Your task to perform on an android device: toggle notification dots Image 0: 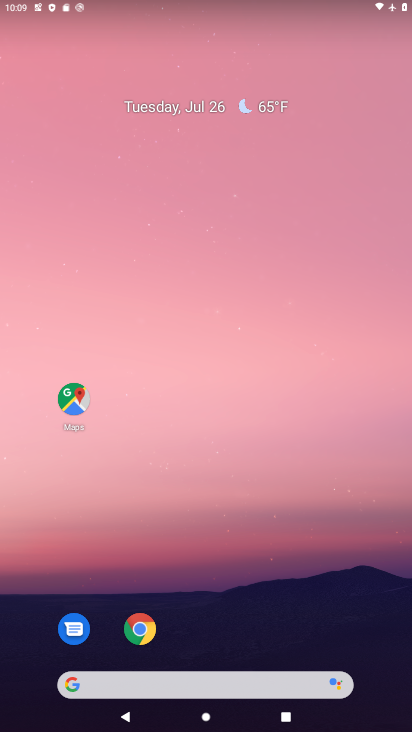
Step 0: drag from (330, 569) to (253, 50)
Your task to perform on an android device: toggle notification dots Image 1: 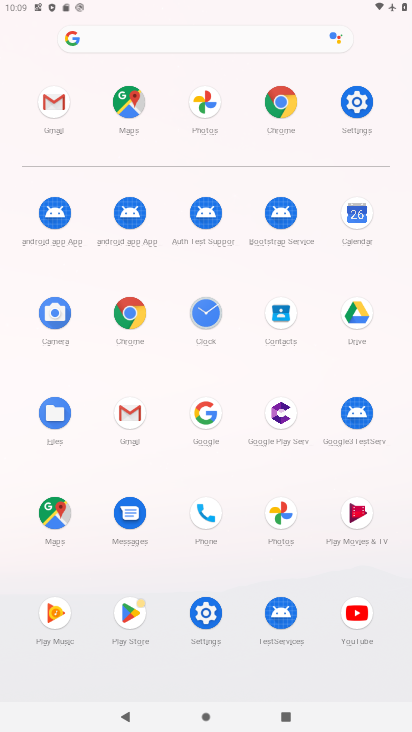
Step 1: click (376, 83)
Your task to perform on an android device: toggle notification dots Image 2: 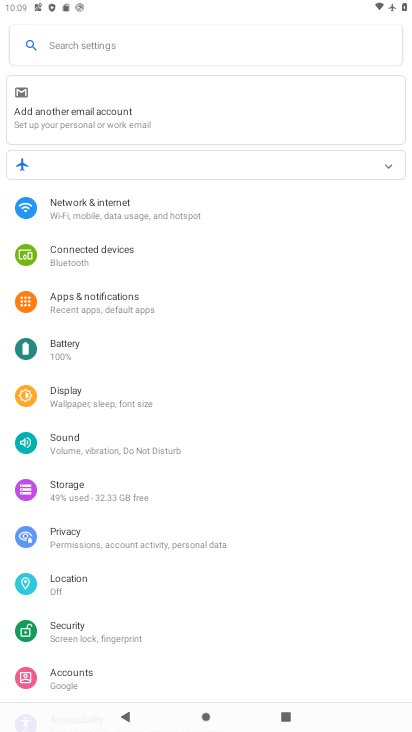
Step 2: click (128, 304)
Your task to perform on an android device: toggle notification dots Image 3: 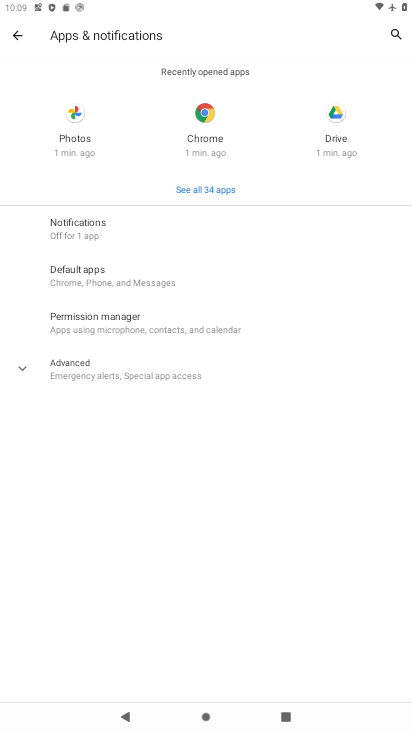
Step 3: click (111, 215)
Your task to perform on an android device: toggle notification dots Image 4: 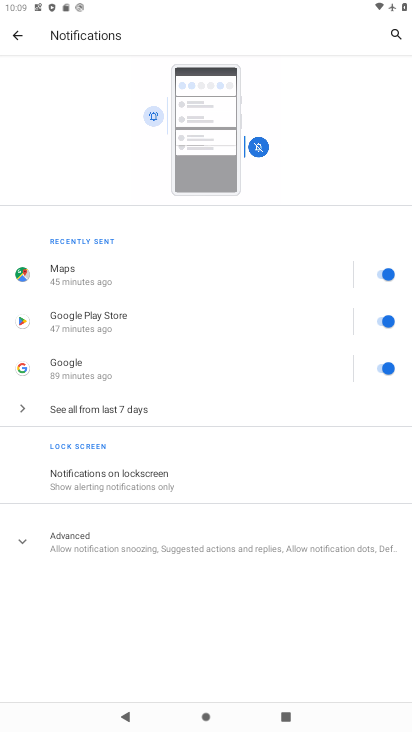
Step 4: click (103, 547)
Your task to perform on an android device: toggle notification dots Image 5: 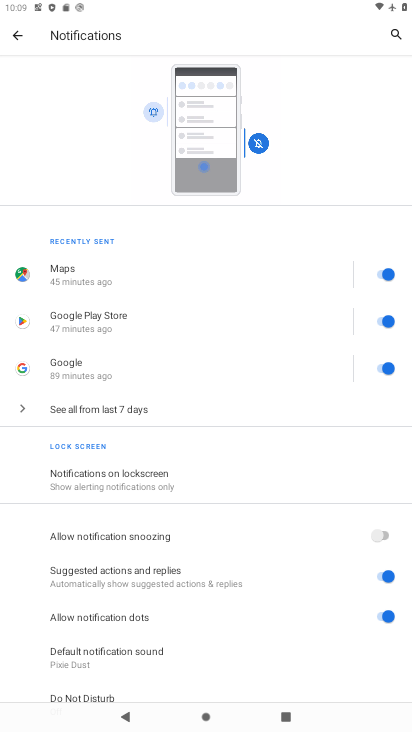
Step 5: click (377, 620)
Your task to perform on an android device: toggle notification dots Image 6: 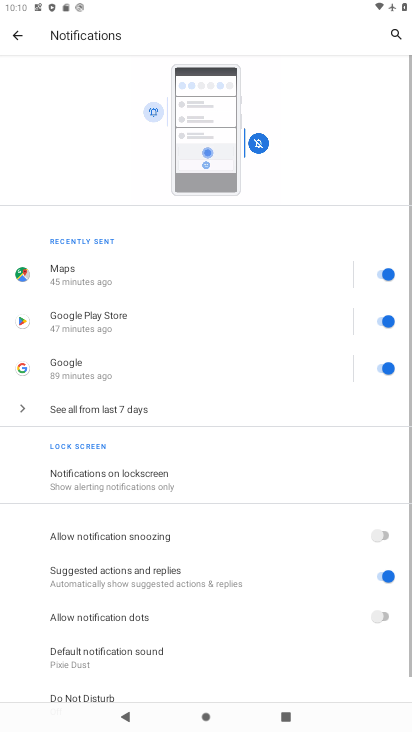
Step 6: task complete